Your task to perform on an android device: Open Chrome and go to the settings page Image 0: 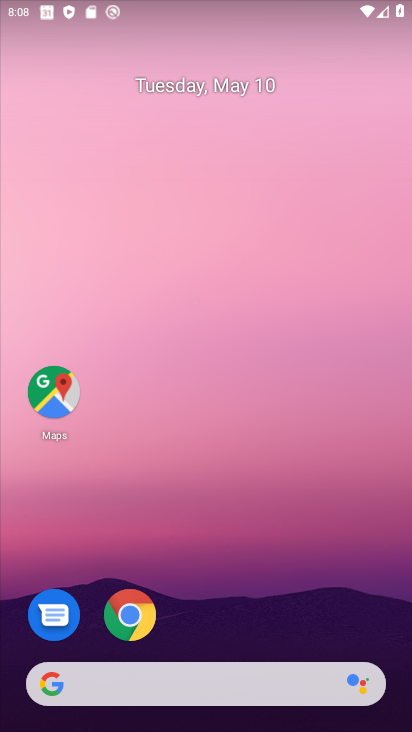
Step 0: drag from (194, 579) to (253, 139)
Your task to perform on an android device: Open Chrome and go to the settings page Image 1: 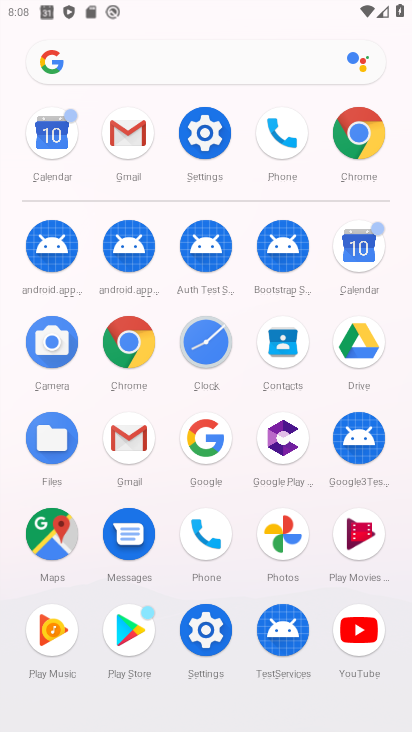
Step 1: click (354, 140)
Your task to perform on an android device: Open Chrome and go to the settings page Image 2: 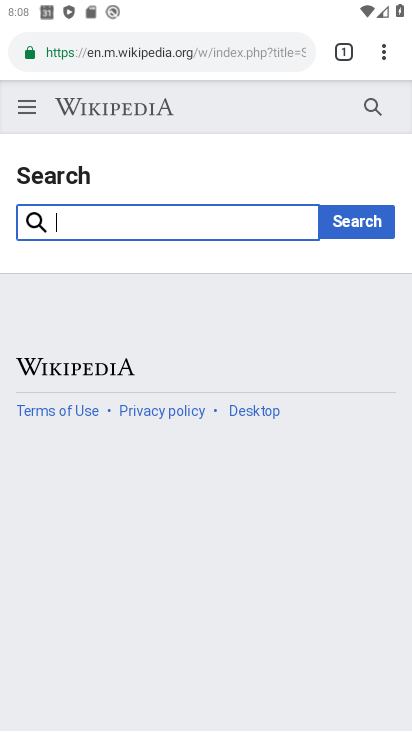
Step 2: drag from (386, 40) to (225, 622)
Your task to perform on an android device: Open Chrome and go to the settings page Image 3: 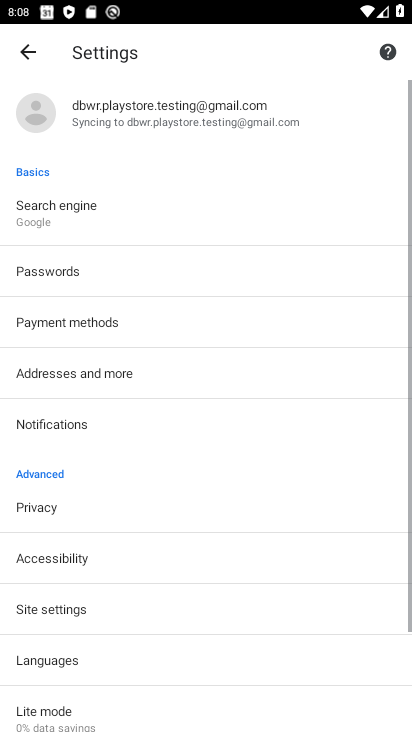
Step 3: drag from (218, 607) to (274, 168)
Your task to perform on an android device: Open Chrome and go to the settings page Image 4: 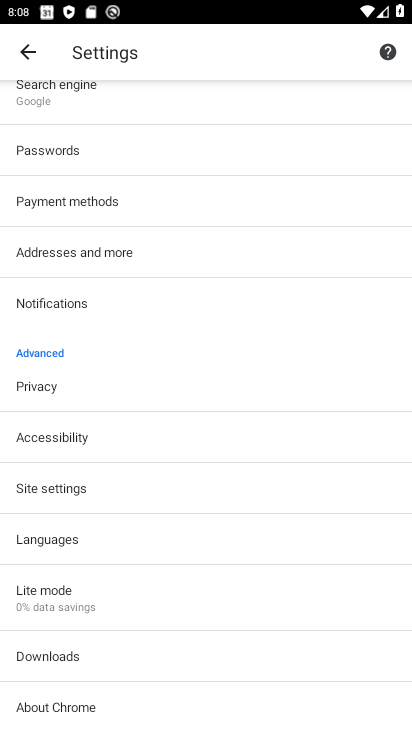
Step 4: click (88, 504)
Your task to perform on an android device: Open Chrome and go to the settings page Image 5: 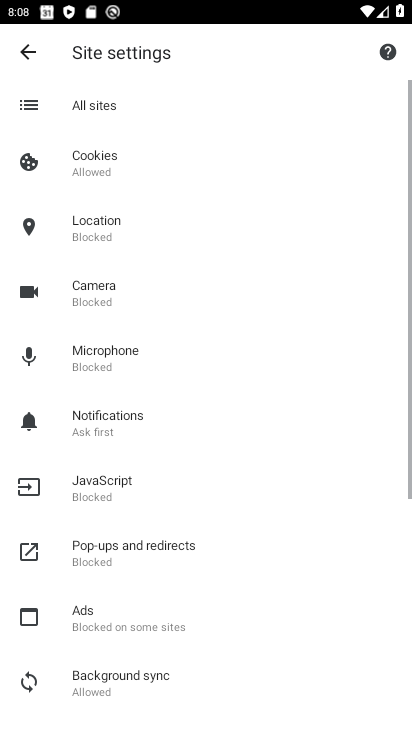
Step 5: task complete